Your task to perform on an android device: Open Reddit.com Image 0: 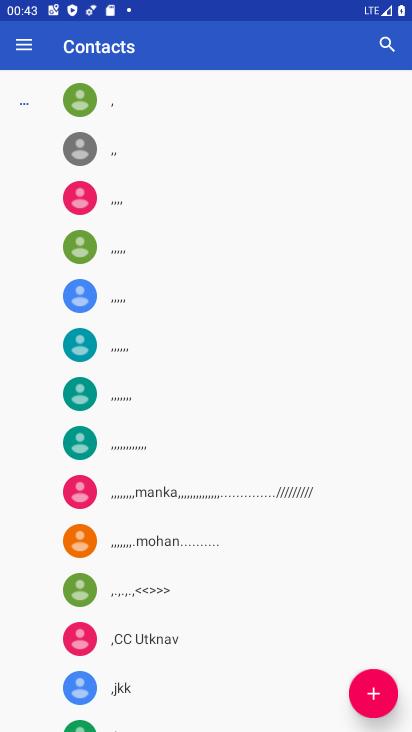
Step 0: press home button
Your task to perform on an android device: Open Reddit.com Image 1: 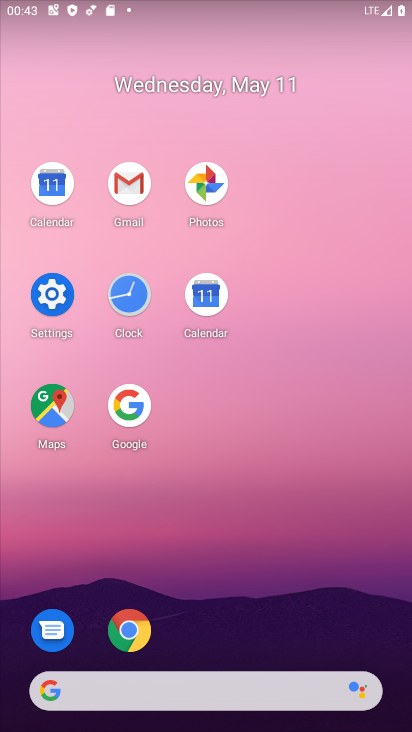
Step 1: click (132, 623)
Your task to perform on an android device: Open Reddit.com Image 2: 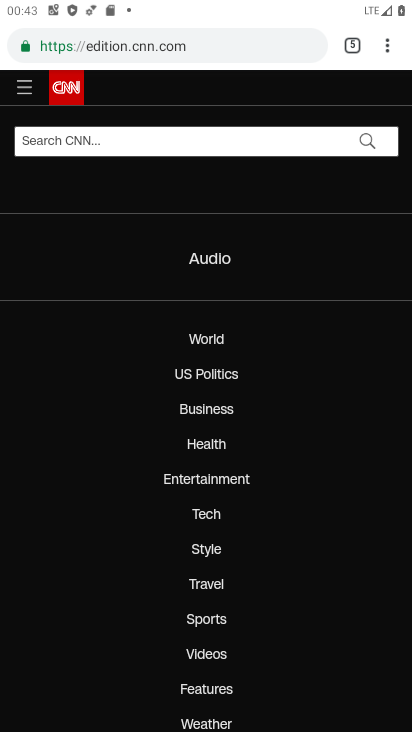
Step 2: click (361, 47)
Your task to perform on an android device: Open Reddit.com Image 3: 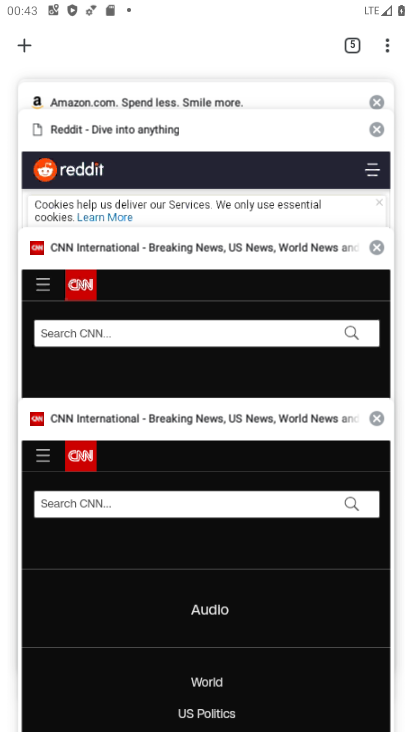
Step 3: click (213, 200)
Your task to perform on an android device: Open Reddit.com Image 4: 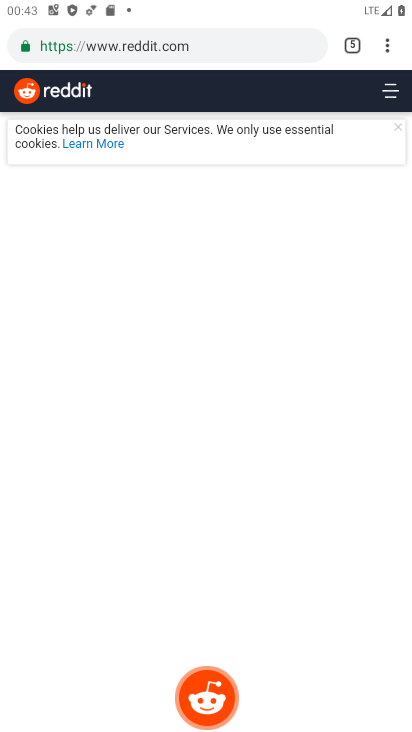
Step 4: task complete